Your task to perform on an android device: toggle show notifications on the lock screen Image 0: 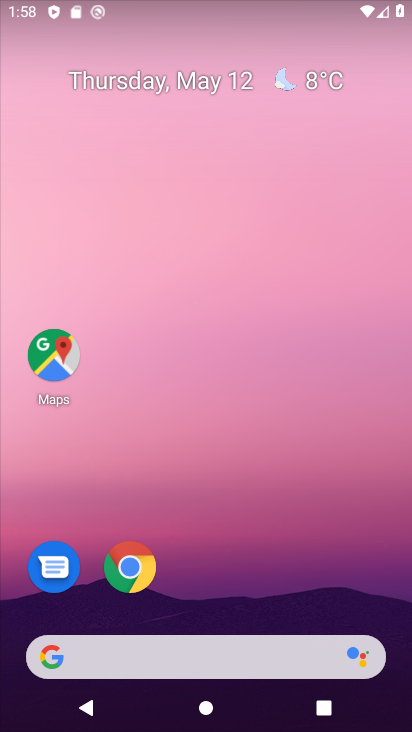
Step 0: drag from (280, 584) to (344, 135)
Your task to perform on an android device: toggle show notifications on the lock screen Image 1: 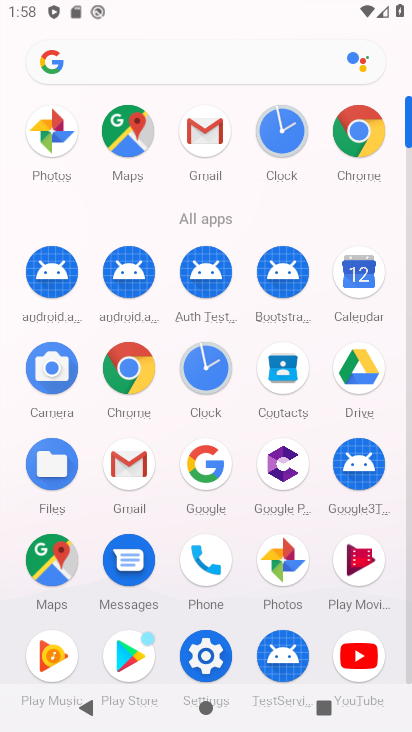
Step 1: drag from (249, 583) to (272, 283)
Your task to perform on an android device: toggle show notifications on the lock screen Image 2: 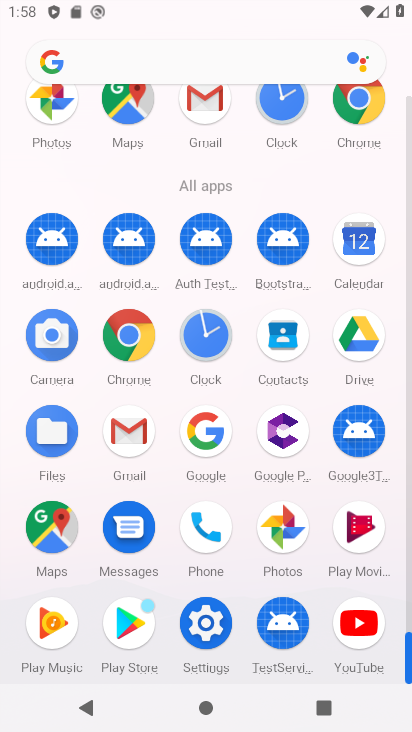
Step 2: click (215, 623)
Your task to perform on an android device: toggle show notifications on the lock screen Image 3: 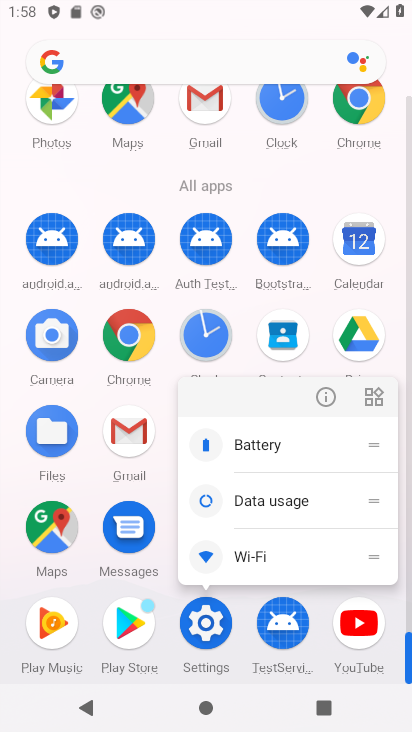
Step 3: click (215, 623)
Your task to perform on an android device: toggle show notifications on the lock screen Image 4: 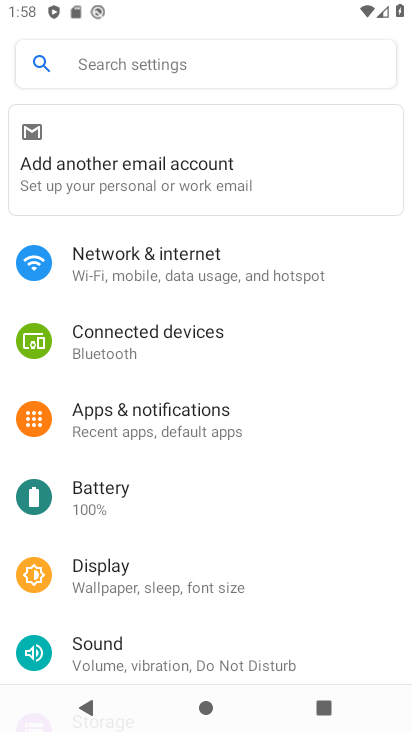
Step 4: click (181, 436)
Your task to perform on an android device: toggle show notifications on the lock screen Image 5: 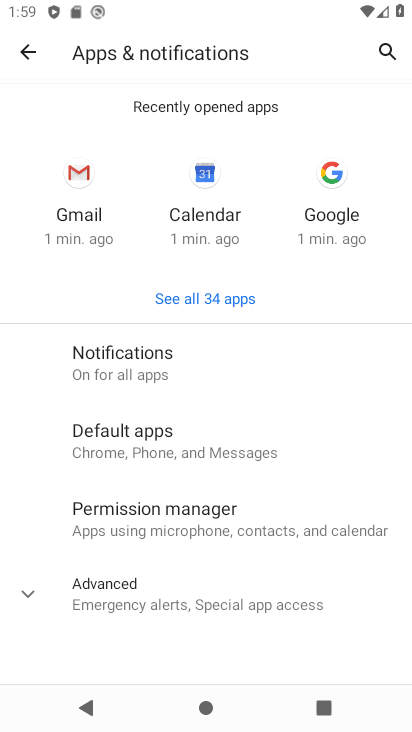
Step 5: click (174, 385)
Your task to perform on an android device: toggle show notifications on the lock screen Image 6: 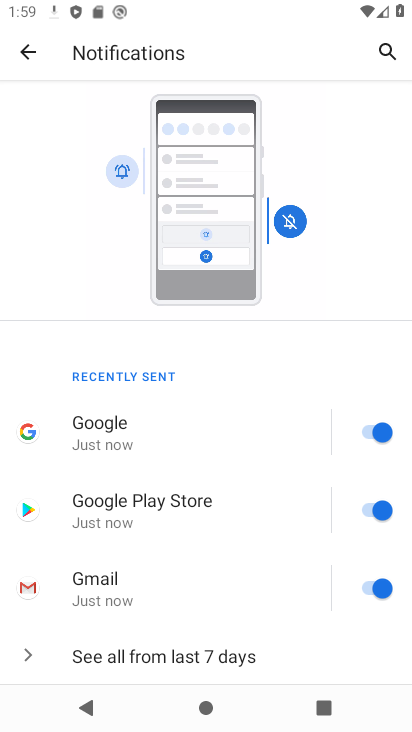
Step 6: drag from (262, 513) to (283, 293)
Your task to perform on an android device: toggle show notifications on the lock screen Image 7: 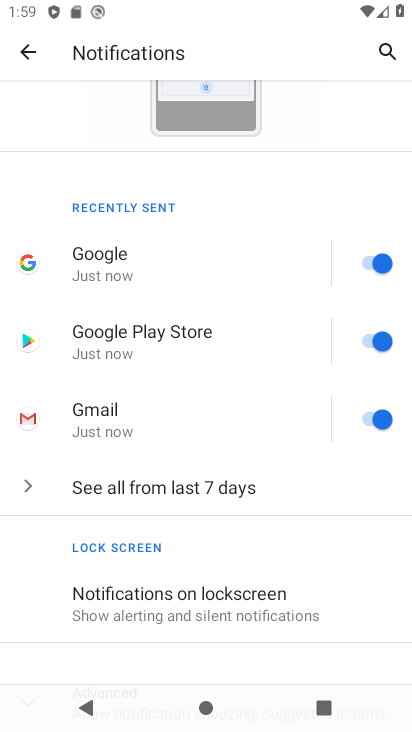
Step 7: click (229, 605)
Your task to perform on an android device: toggle show notifications on the lock screen Image 8: 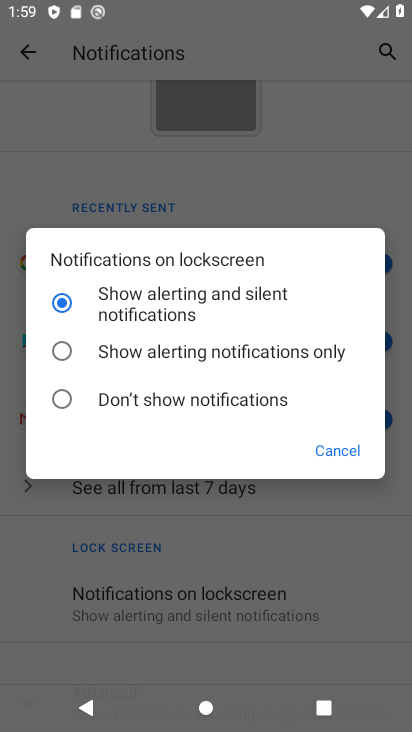
Step 8: click (179, 362)
Your task to perform on an android device: toggle show notifications on the lock screen Image 9: 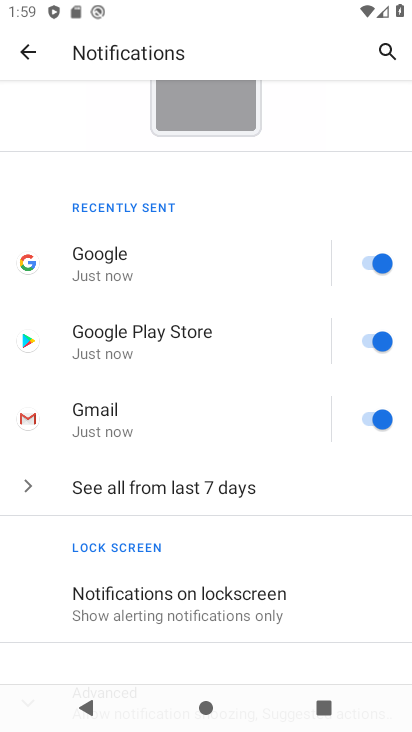
Step 9: task complete